Your task to perform on an android device: toggle wifi Image 0: 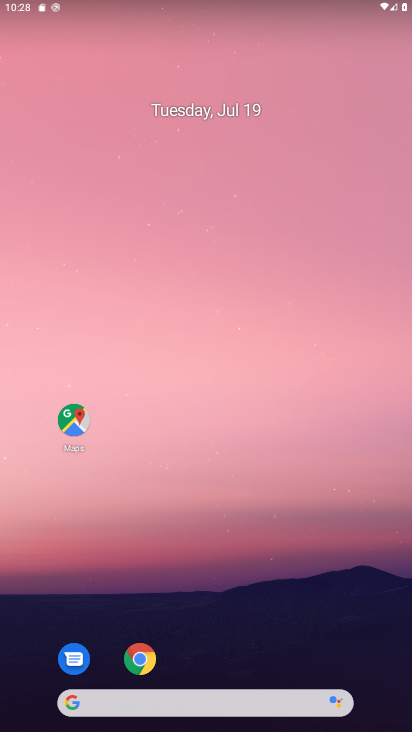
Step 0: click (184, 136)
Your task to perform on an android device: toggle wifi Image 1: 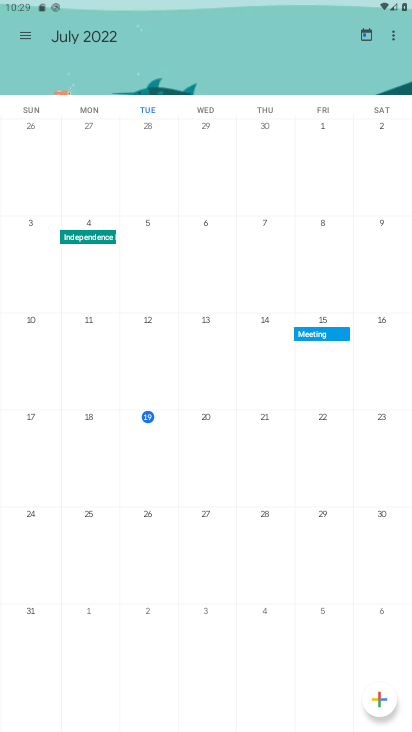
Step 1: press home button
Your task to perform on an android device: toggle wifi Image 2: 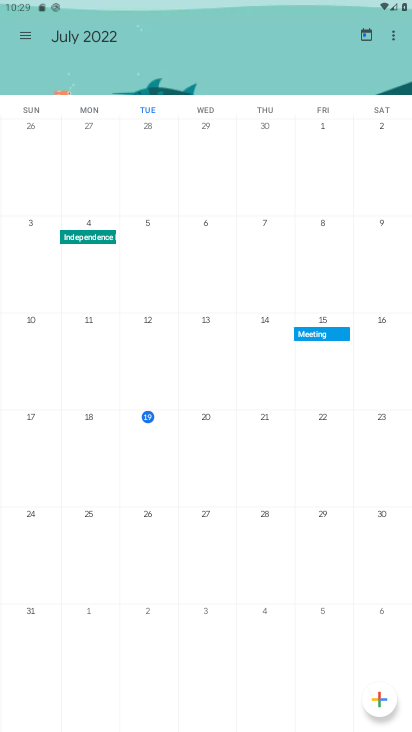
Step 2: press home button
Your task to perform on an android device: toggle wifi Image 3: 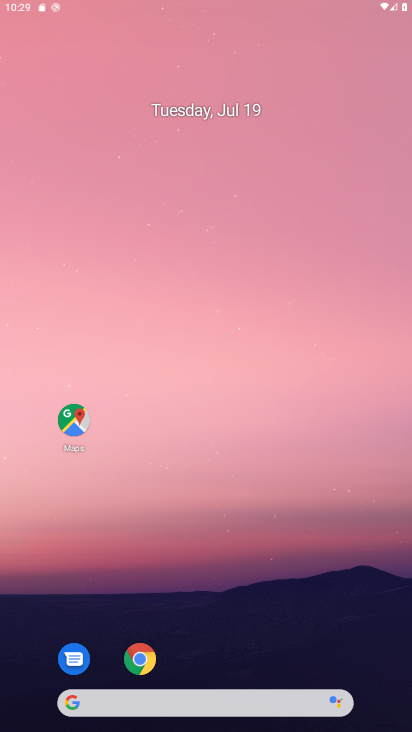
Step 3: press home button
Your task to perform on an android device: toggle wifi Image 4: 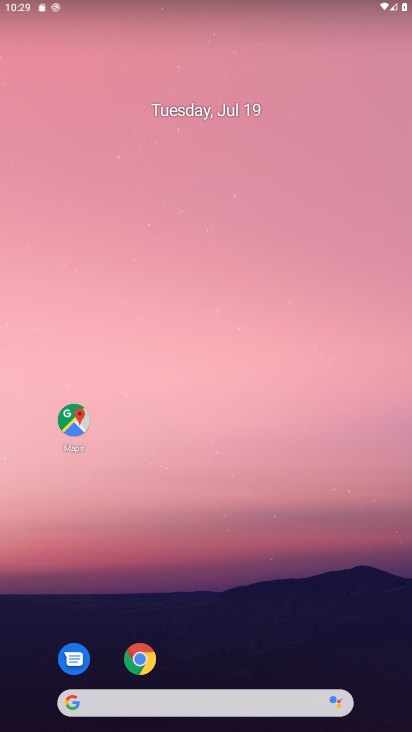
Step 4: drag from (203, 637) to (211, 164)
Your task to perform on an android device: toggle wifi Image 5: 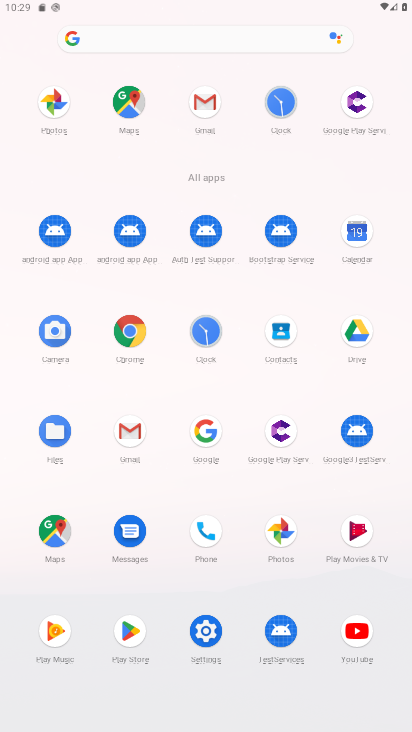
Step 5: click (208, 639)
Your task to perform on an android device: toggle wifi Image 6: 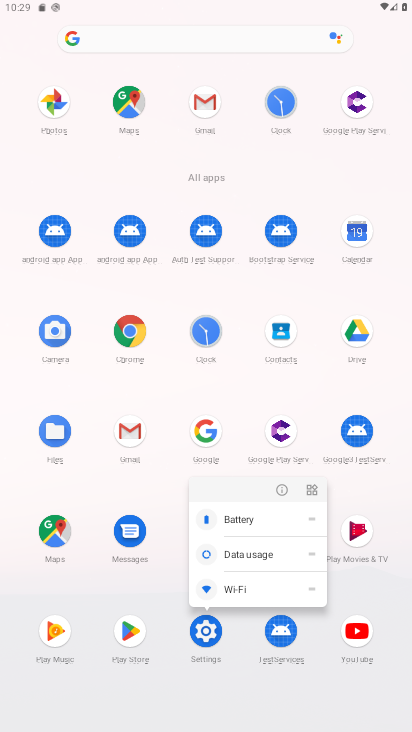
Step 6: click (277, 492)
Your task to perform on an android device: toggle wifi Image 7: 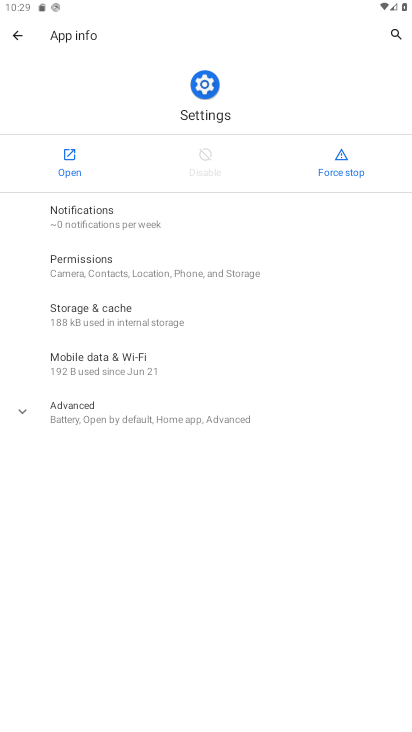
Step 7: click (64, 162)
Your task to perform on an android device: toggle wifi Image 8: 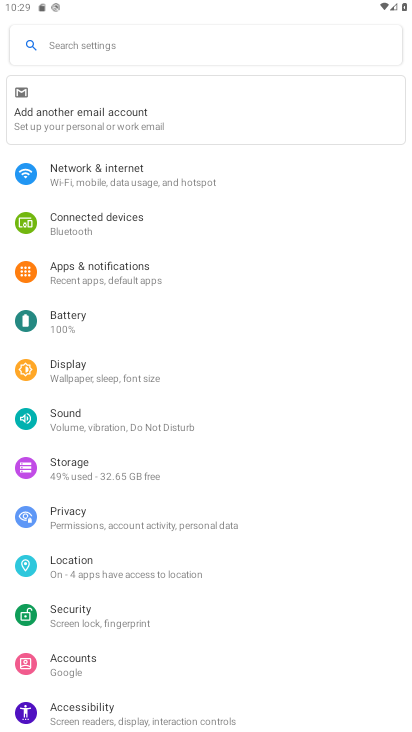
Step 8: click (94, 174)
Your task to perform on an android device: toggle wifi Image 9: 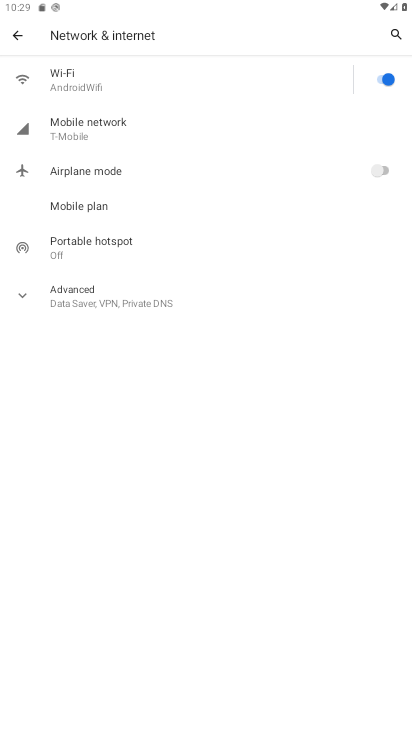
Step 9: click (161, 101)
Your task to perform on an android device: toggle wifi Image 10: 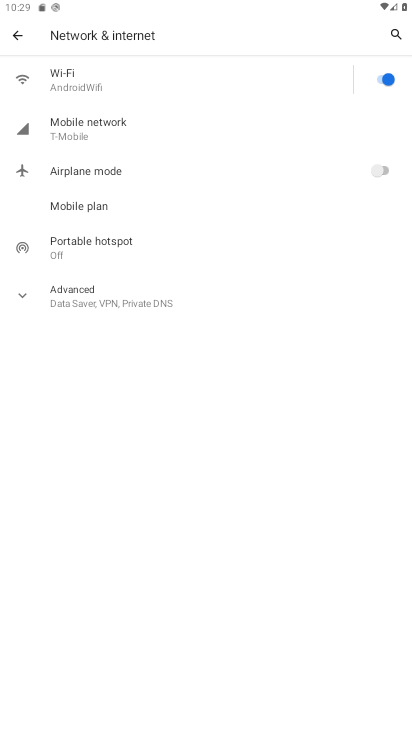
Step 10: click (161, 101)
Your task to perform on an android device: toggle wifi Image 11: 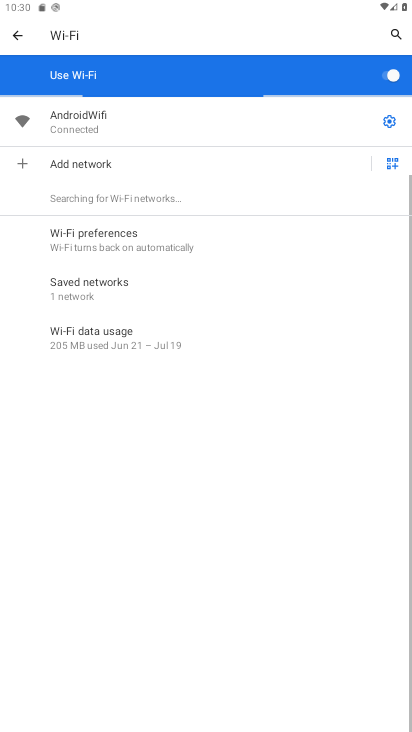
Step 11: click (390, 75)
Your task to perform on an android device: toggle wifi Image 12: 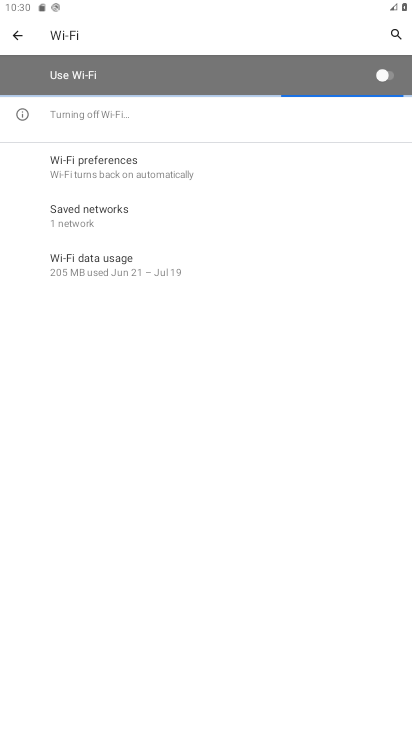
Step 12: task complete